Your task to perform on an android device: change notifications settings Image 0: 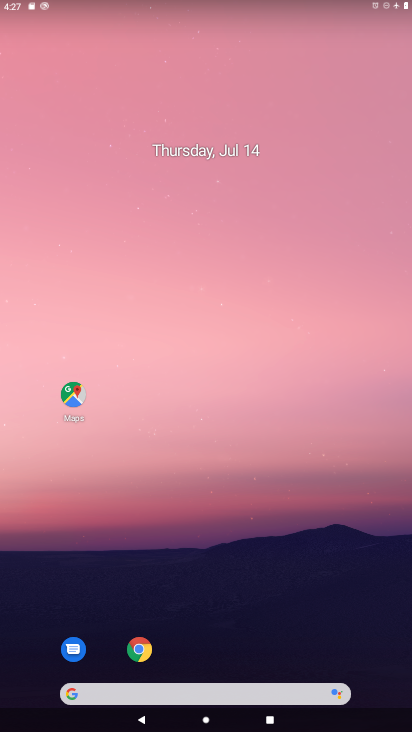
Step 0: drag from (204, 623) to (203, 105)
Your task to perform on an android device: change notifications settings Image 1: 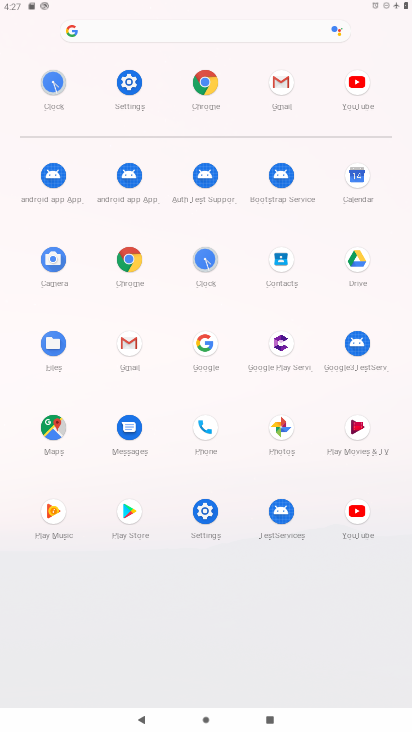
Step 1: click (216, 525)
Your task to perform on an android device: change notifications settings Image 2: 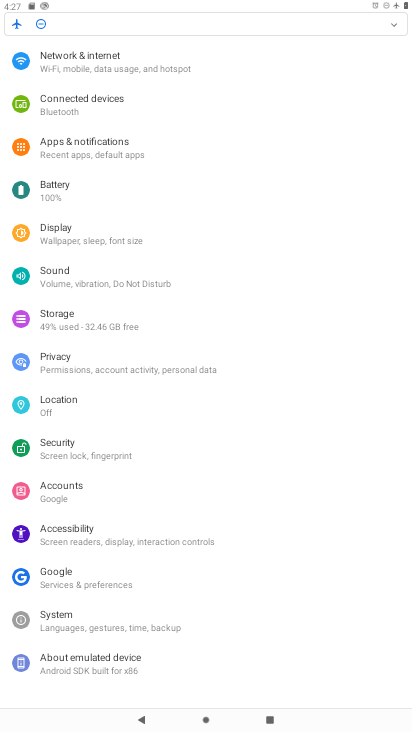
Step 2: click (84, 152)
Your task to perform on an android device: change notifications settings Image 3: 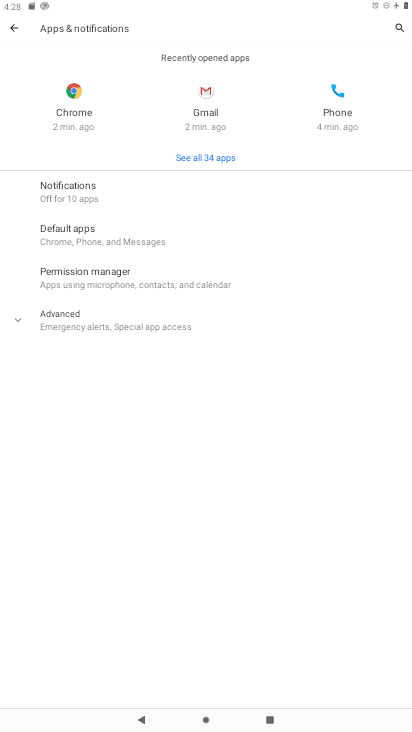
Step 3: click (82, 196)
Your task to perform on an android device: change notifications settings Image 4: 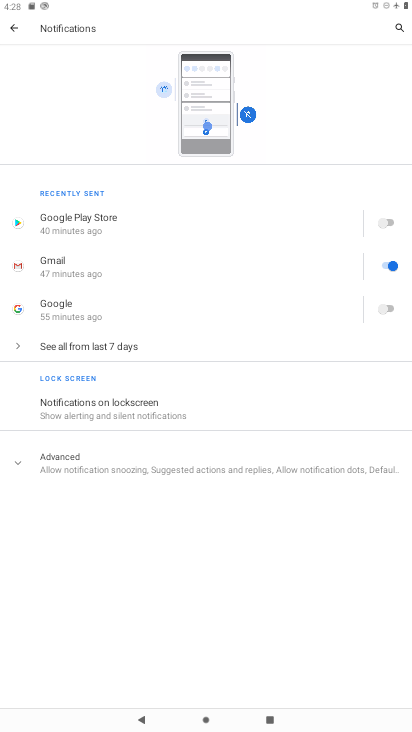
Step 4: click (84, 334)
Your task to perform on an android device: change notifications settings Image 5: 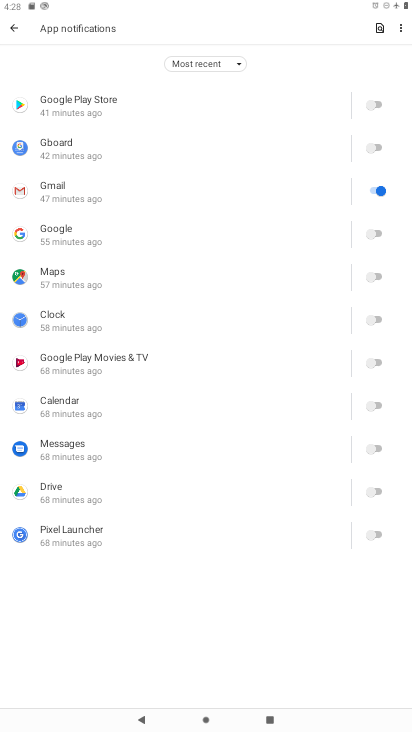
Step 5: click (383, 103)
Your task to perform on an android device: change notifications settings Image 6: 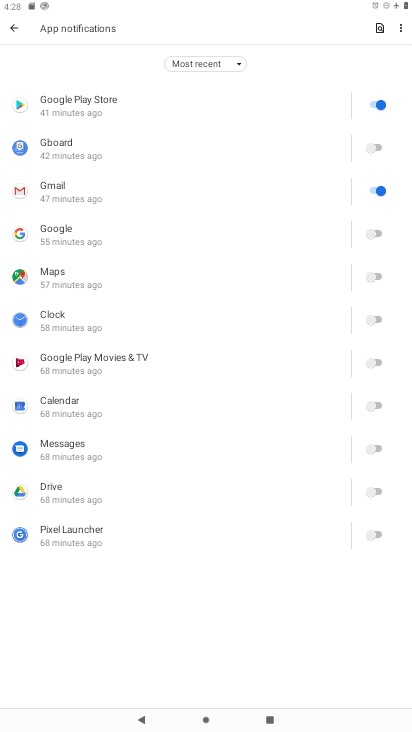
Step 6: click (382, 148)
Your task to perform on an android device: change notifications settings Image 7: 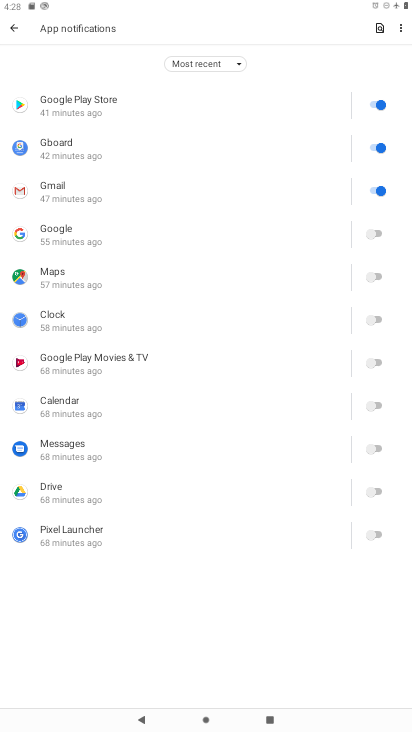
Step 7: click (387, 228)
Your task to perform on an android device: change notifications settings Image 8: 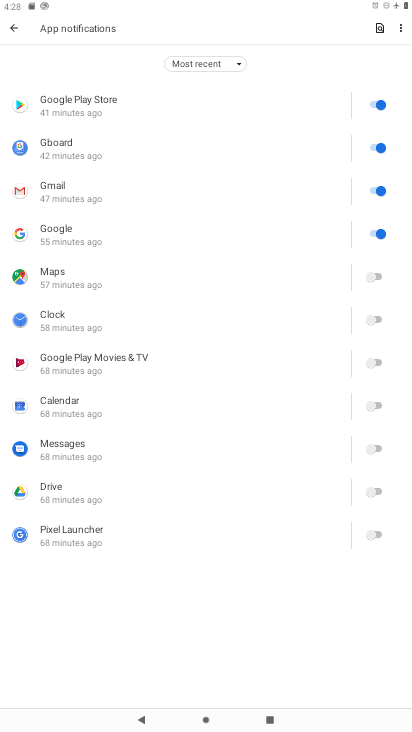
Step 8: click (380, 275)
Your task to perform on an android device: change notifications settings Image 9: 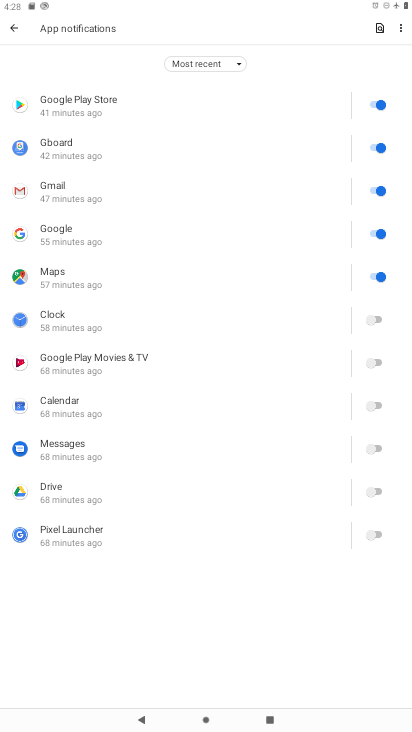
Step 9: click (385, 363)
Your task to perform on an android device: change notifications settings Image 10: 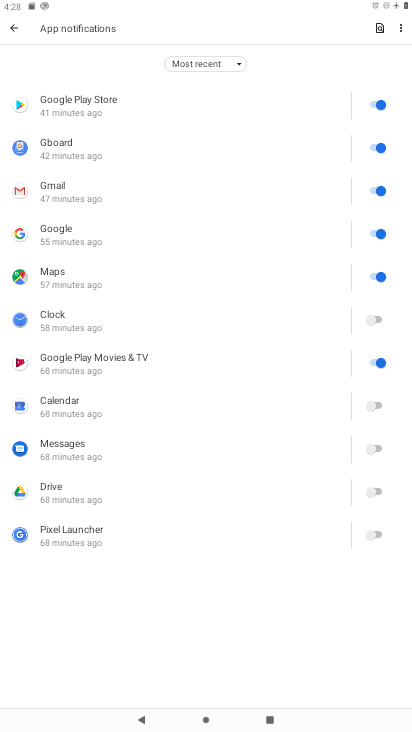
Step 10: click (384, 312)
Your task to perform on an android device: change notifications settings Image 11: 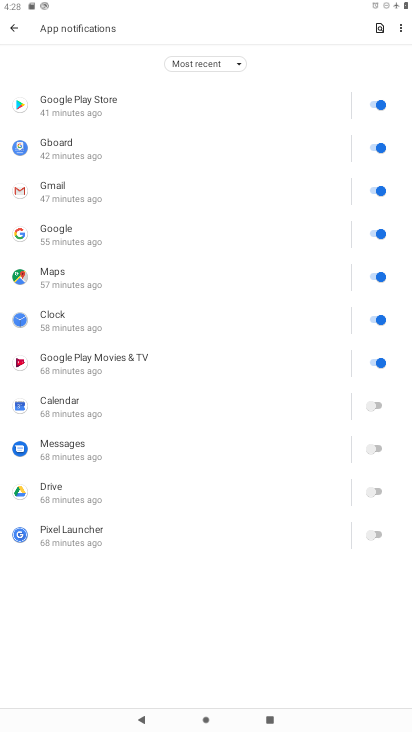
Step 11: click (372, 409)
Your task to perform on an android device: change notifications settings Image 12: 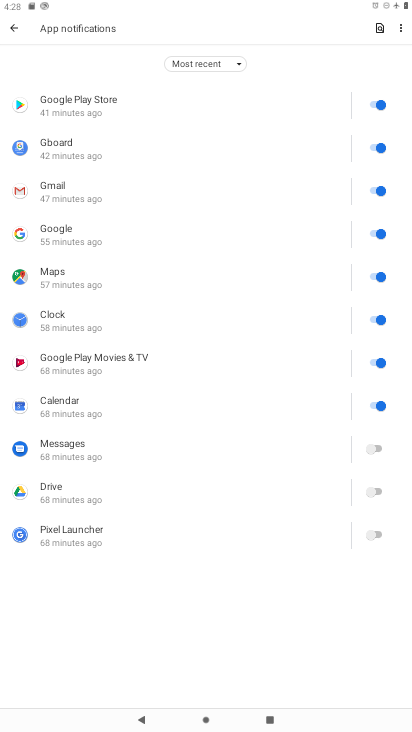
Step 12: click (376, 451)
Your task to perform on an android device: change notifications settings Image 13: 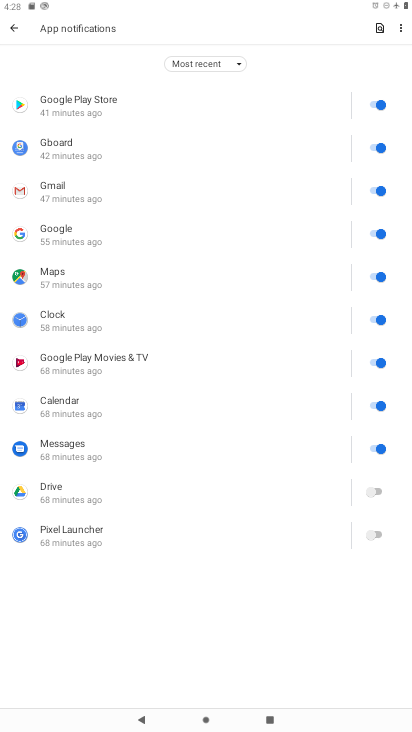
Step 13: click (378, 496)
Your task to perform on an android device: change notifications settings Image 14: 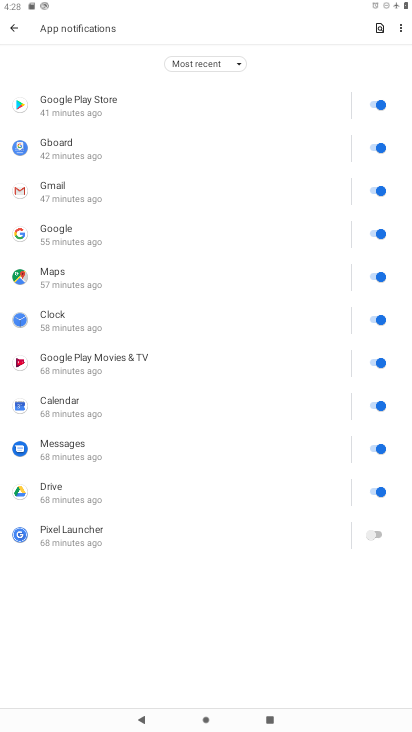
Step 14: click (379, 543)
Your task to perform on an android device: change notifications settings Image 15: 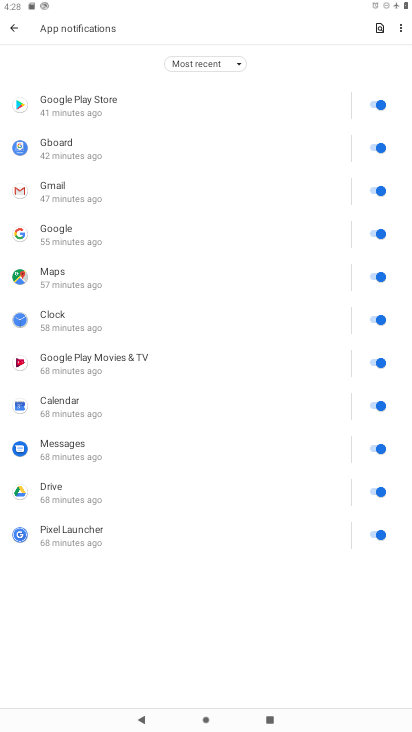
Step 15: task complete